Your task to perform on an android device: open chrome privacy settings Image 0: 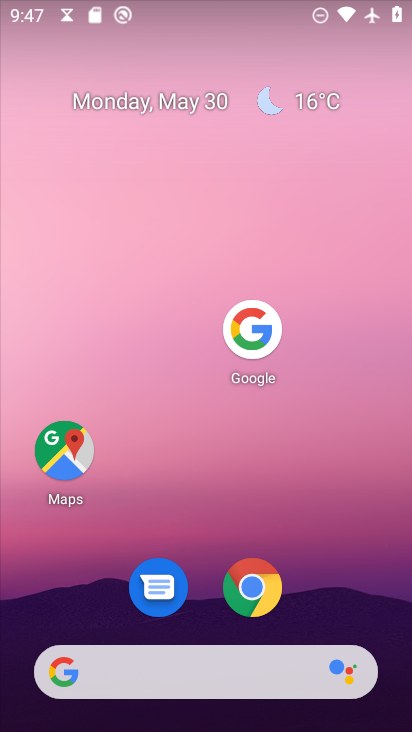
Step 0: click (251, 598)
Your task to perform on an android device: open chrome privacy settings Image 1: 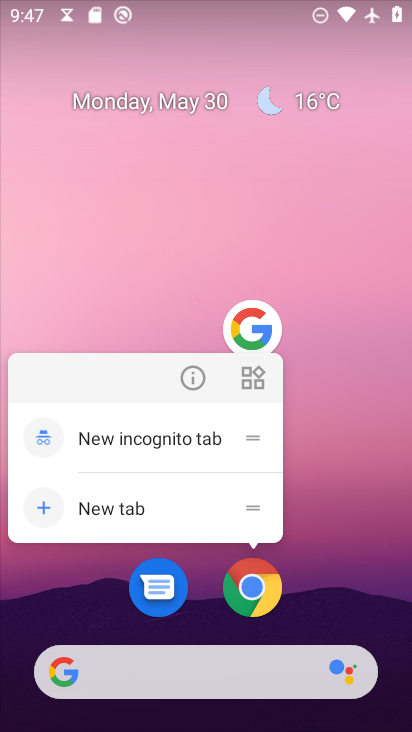
Step 1: click (250, 596)
Your task to perform on an android device: open chrome privacy settings Image 2: 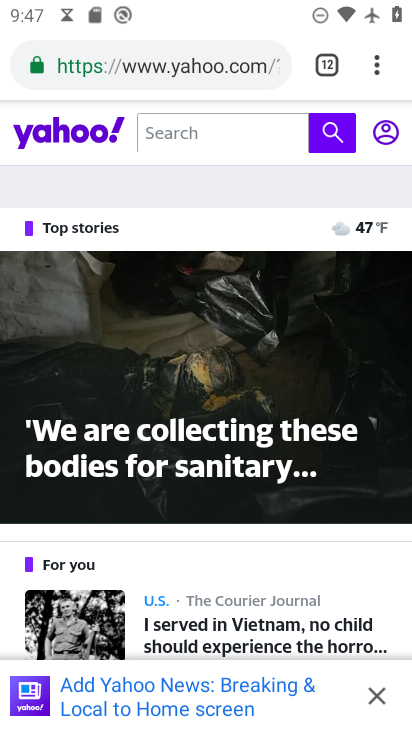
Step 2: drag from (376, 59) to (221, 645)
Your task to perform on an android device: open chrome privacy settings Image 3: 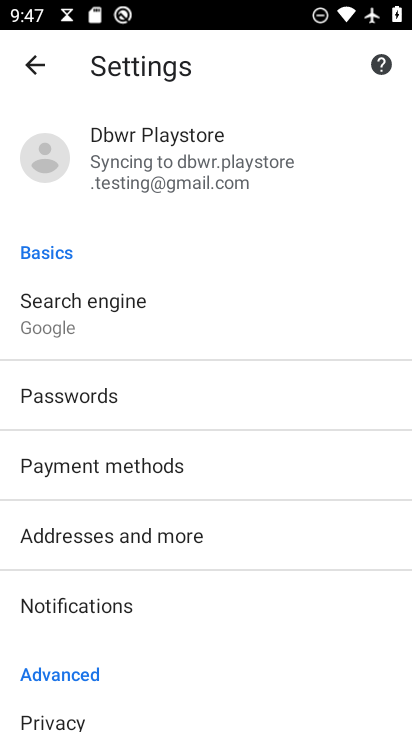
Step 3: drag from (236, 400) to (298, 268)
Your task to perform on an android device: open chrome privacy settings Image 4: 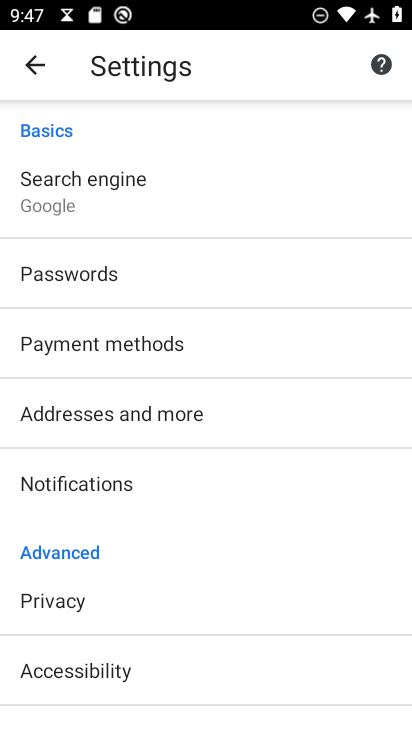
Step 4: click (64, 597)
Your task to perform on an android device: open chrome privacy settings Image 5: 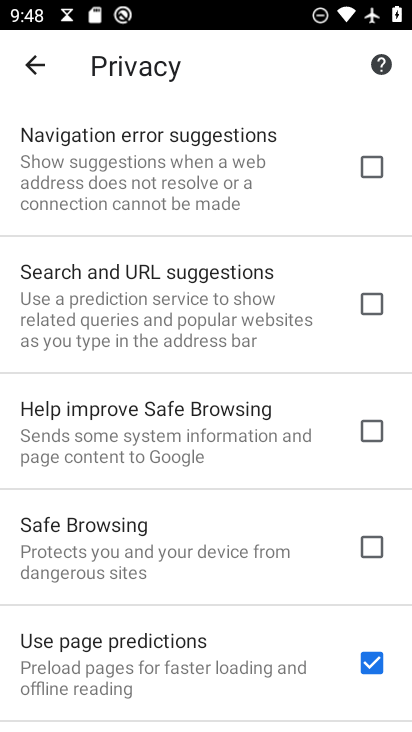
Step 5: task complete